Your task to perform on an android device: Go to ESPN.com Image 0: 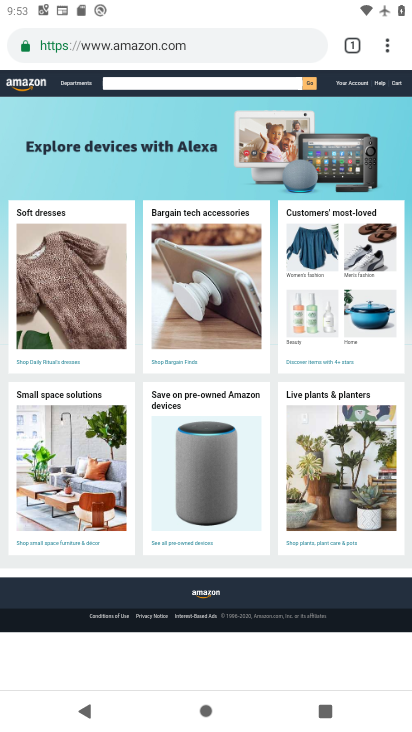
Step 0: press home button
Your task to perform on an android device: Go to ESPN.com Image 1: 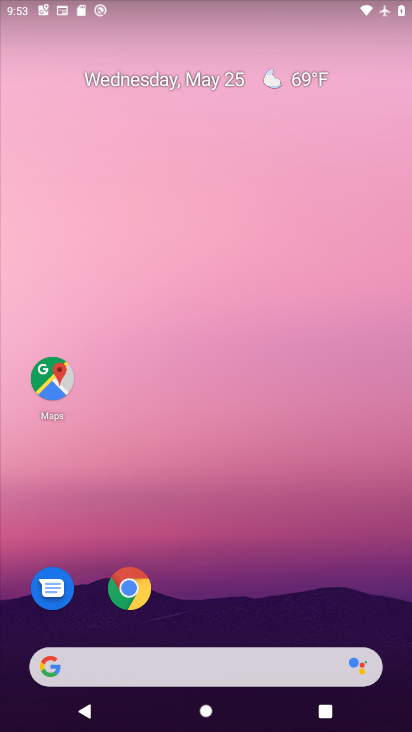
Step 1: drag from (362, 523) to (348, 137)
Your task to perform on an android device: Go to ESPN.com Image 2: 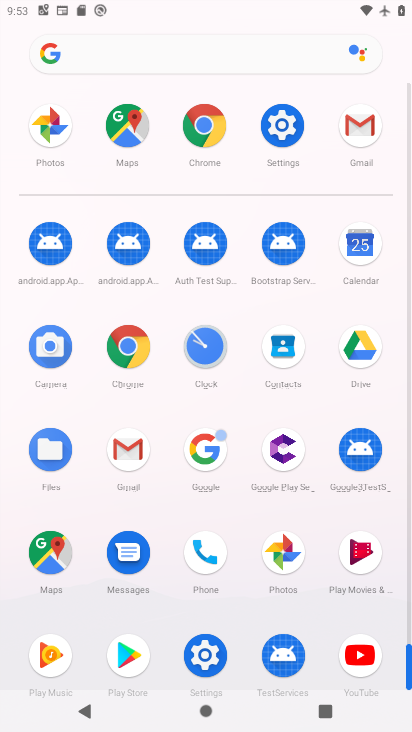
Step 2: click (129, 356)
Your task to perform on an android device: Go to ESPN.com Image 3: 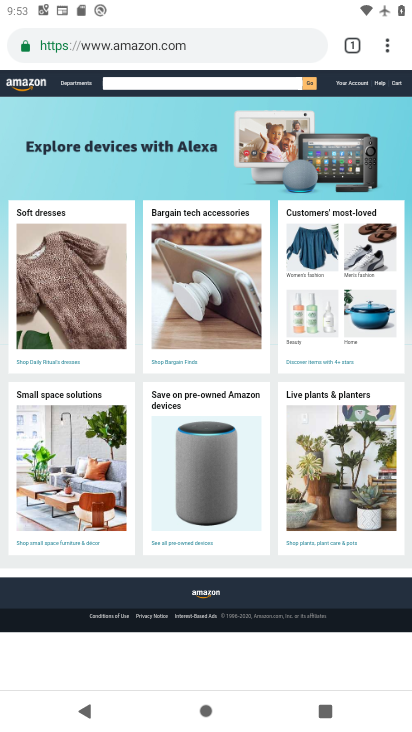
Step 3: click (213, 44)
Your task to perform on an android device: Go to ESPN.com Image 4: 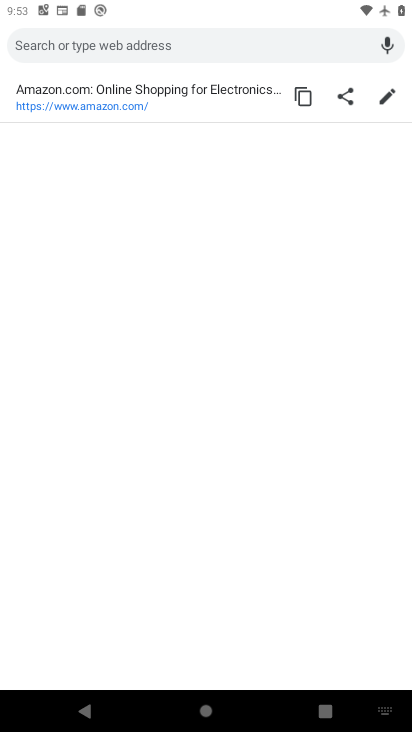
Step 4: type "espn.com"
Your task to perform on an android device: Go to ESPN.com Image 5: 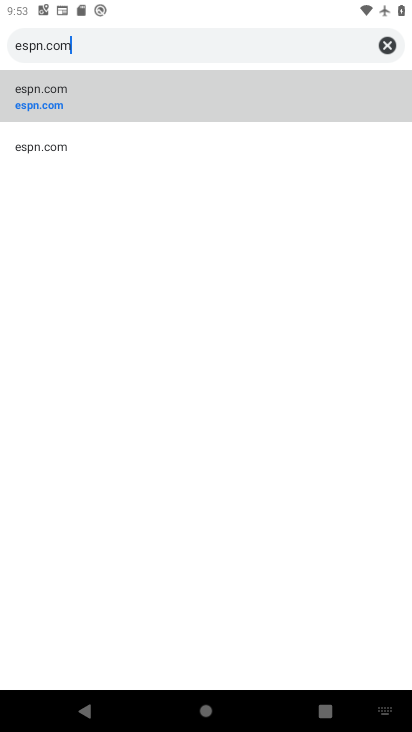
Step 5: click (118, 89)
Your task to perform on an android device: Go to ESPN.com Image 6: 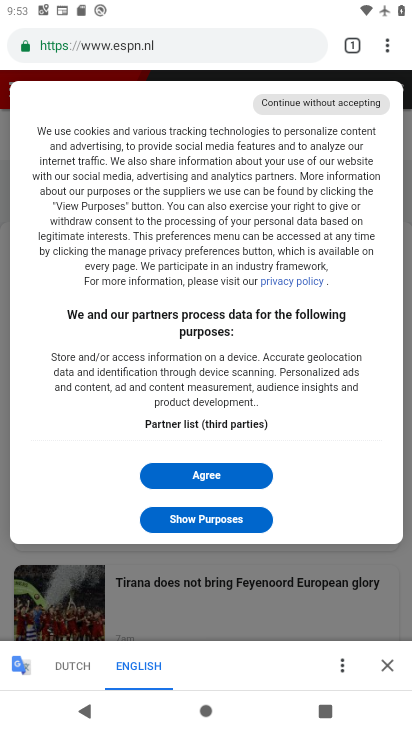
Step 6: task complete